Your task to perform on an android device: toggle airplane mode Image 0: 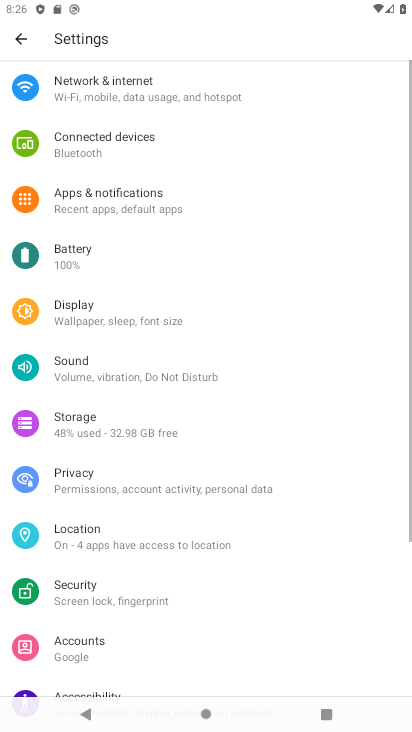
Step 0: press back button
Your task to perform on an android device: toggle airplane mode Image 1: 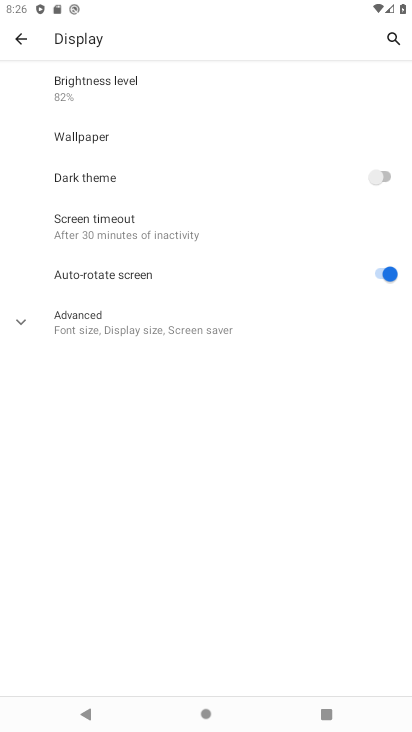
Step 1: press home button
Your task to perform on an android device: toggle airplane mode Image 2: 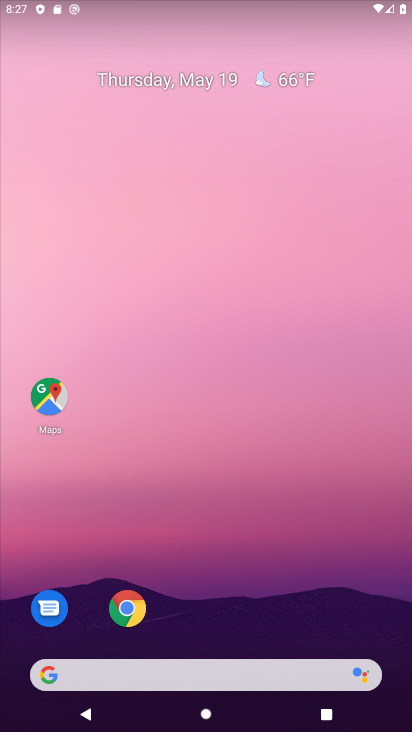
Step 2: click (245, 85)
Your task to perform on an android device: toggle airplane mode Image 3: 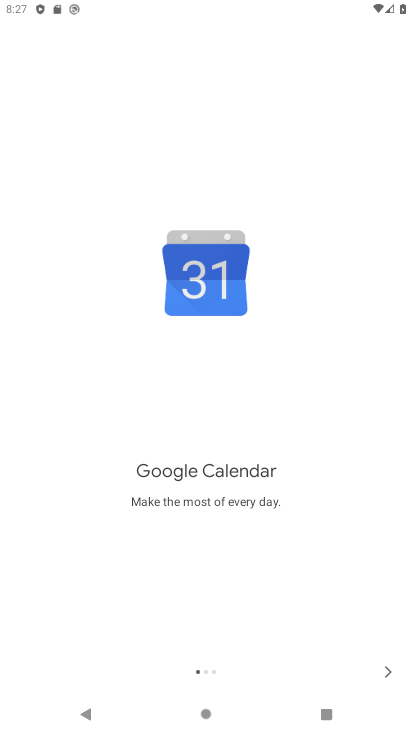
Step 3: click (388, 671)
Your task to perform on an android device: toggle airplane mode Image 4: 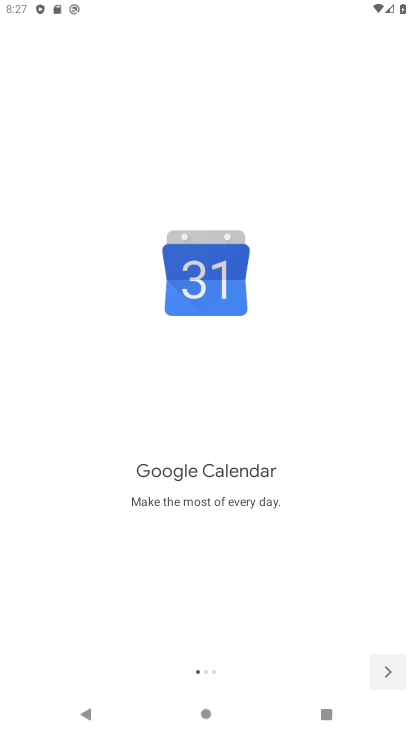
Step 4: click (388, 671)
Your task to perform on an android device: toggle airplane mode Image 5: 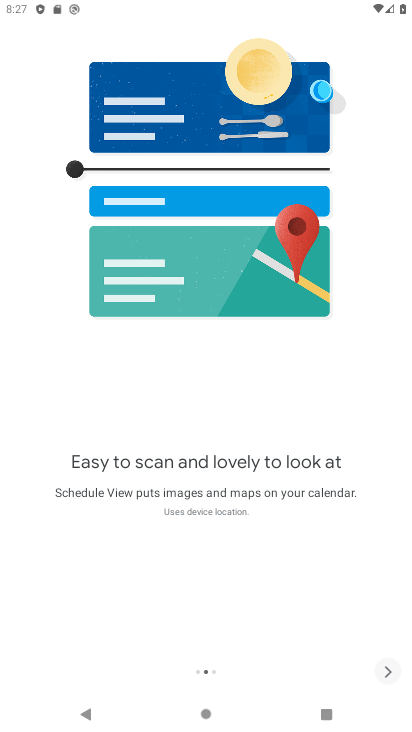
Step 5: click (388, 671)
Your task to perform on an android device: toggle airplane mode Image 6: 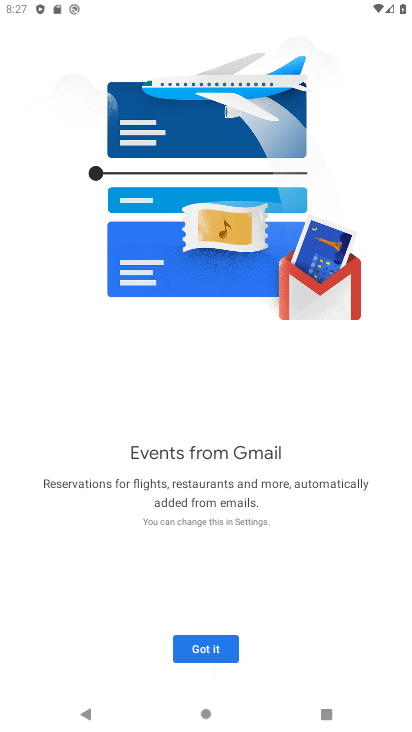
Step 6: click (386, 673)
Your task to perform on an android device: toggle airplane mode Image 7: 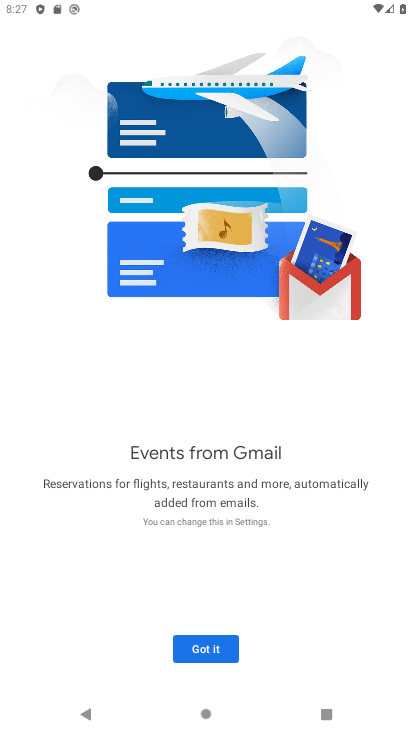
Step 7: click (386, 673)
Your task to perform on an android device: toggle airplane mode Image 8: 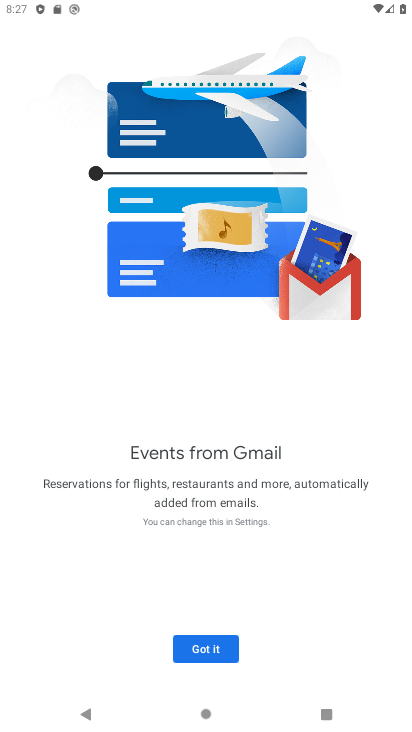
Step 8: click (225, 651)
Your task to perform on an android device: toggle airplane mode Image 9: 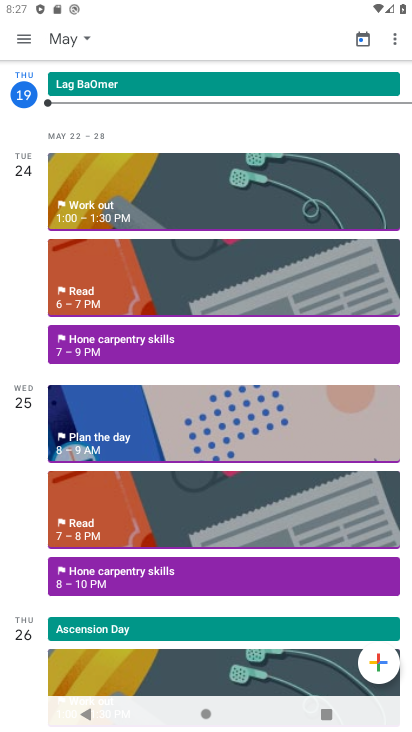
Step 9: press back button
Your task to perform on an android device: toggle airplane mode Image 10: 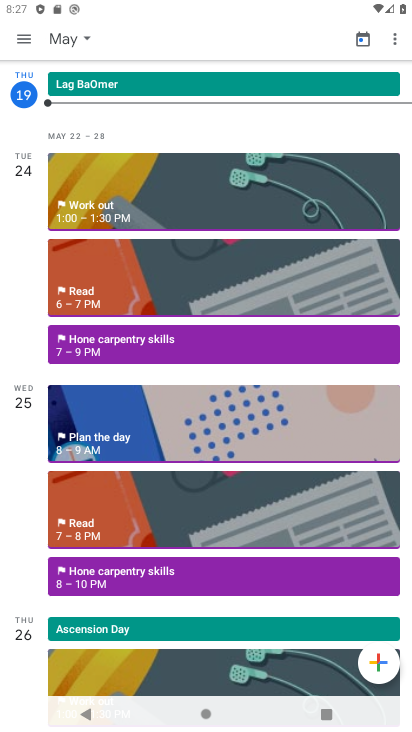
Step 10: press back button
Your task to perform on an android device: toggle airplane mode Image 11: 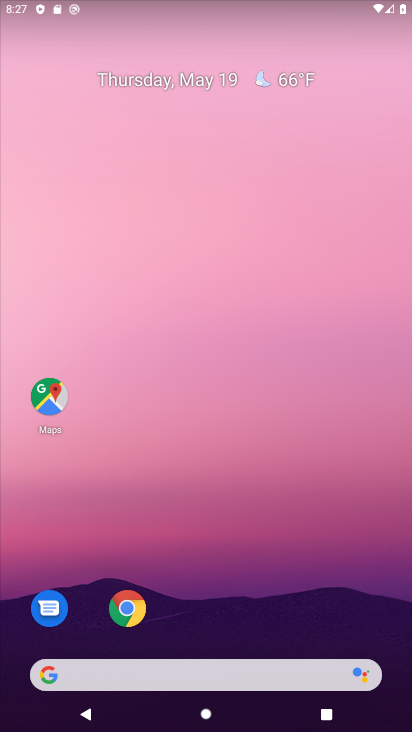
Step 11: drag from (295, 695) to (236, 40)
Your task to perform on an android device: toggle airplane mode Image 12: 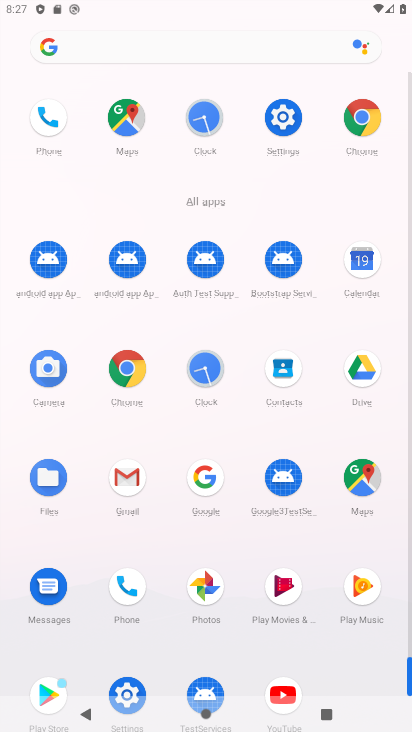
Step 12: click (290, 116)
Your task to perform on an android device: toggle airplane mode Image 13: 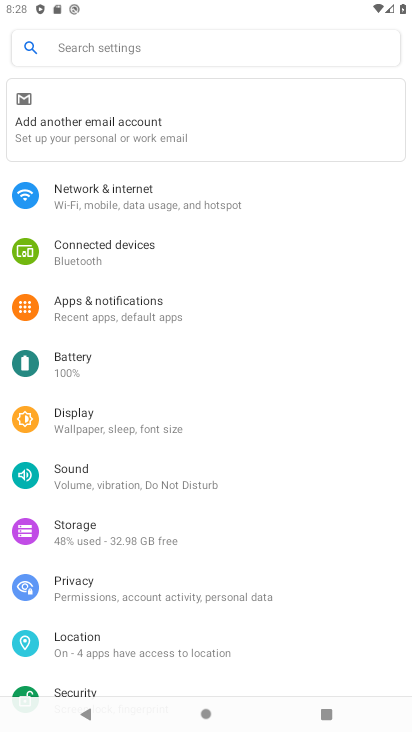
Step 13: press back button
Your task to perform on an android device: toggle airplane mode Image 14: 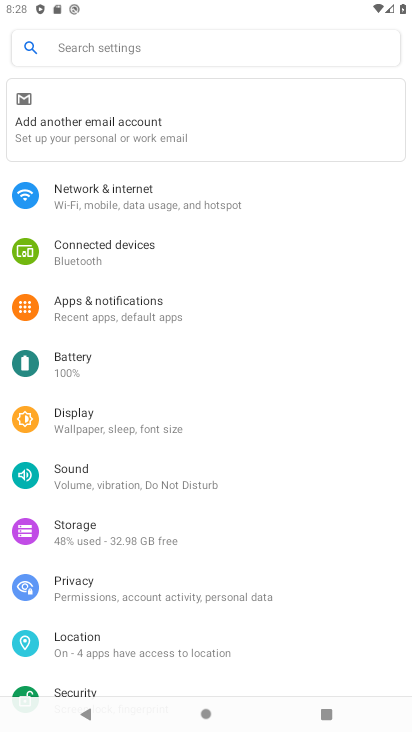
Step 14: press back button
Your task to perform on an android device: toggle airplane mode Image 15: 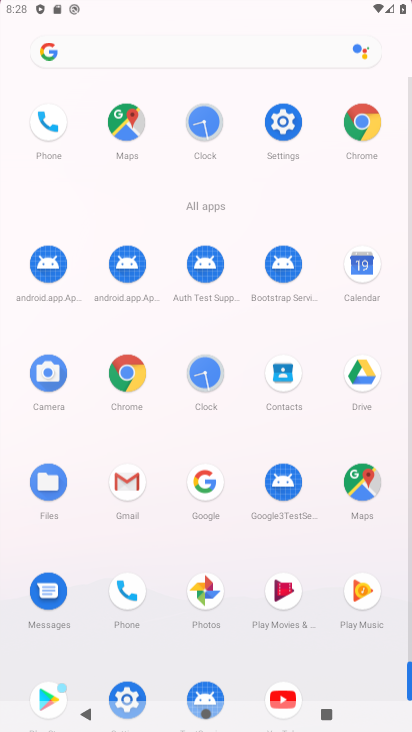
Step 15: press back button
Your task to perform on an android device: toggle airplane mode Image 16: 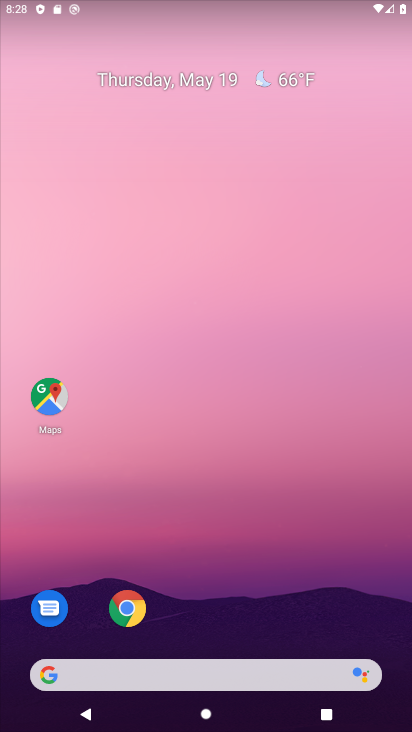
Step 16: press back button
Your task to perform on an android device: toggle airplane mode Image 17: 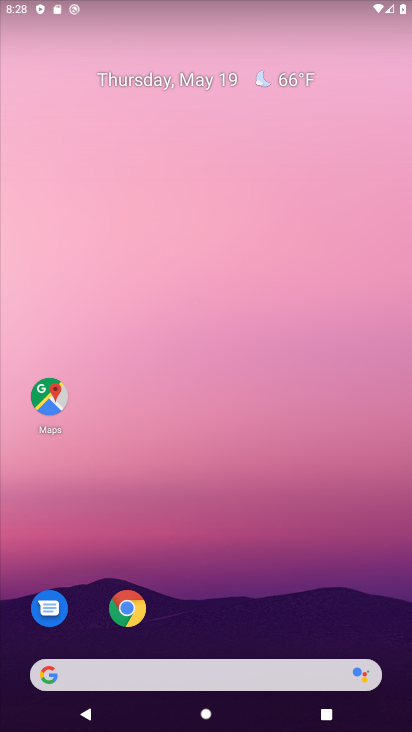
Step 17: press home button
Your task to perform on an android device: toggle airplane mode Image 18: 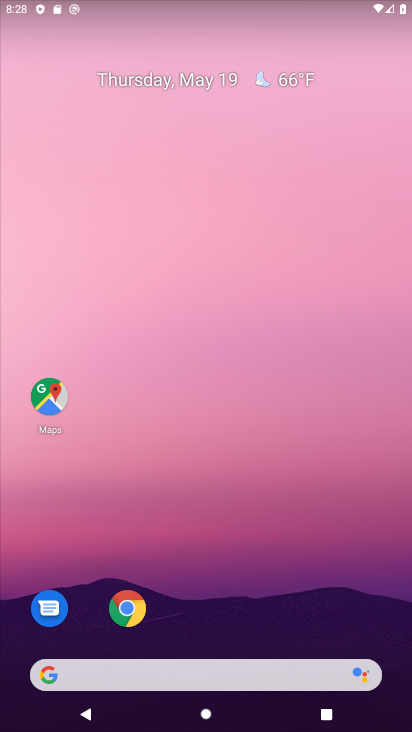
Step 18: press home button
Your task to perform on an android device: toggle airplane mode Image 19: 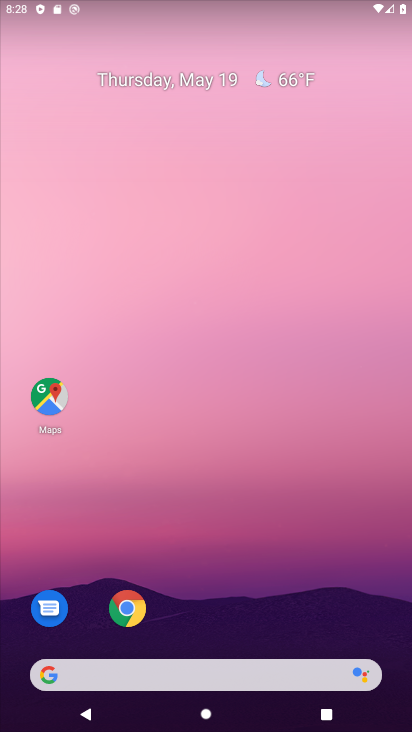
Step 19: press home button
Your task to perform on an android device: toggle airplane mode Image 20: 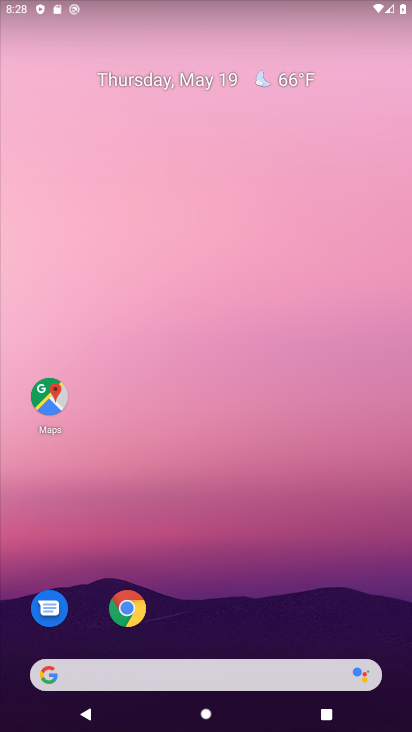
Step 20: drag from (255, 721) to (132, 48)
Your task to perform on an android device: toggle airplane mode Image 21: 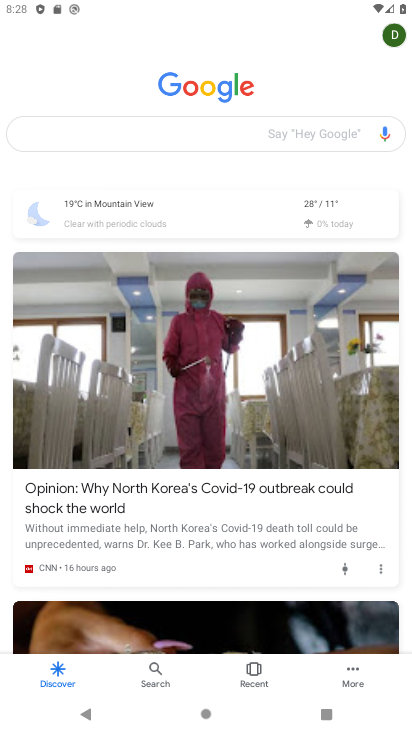
Step 21: drag from (212, 442) to (208, 300)
Your task to perform on an android device: toggle airplane mode Image 22: 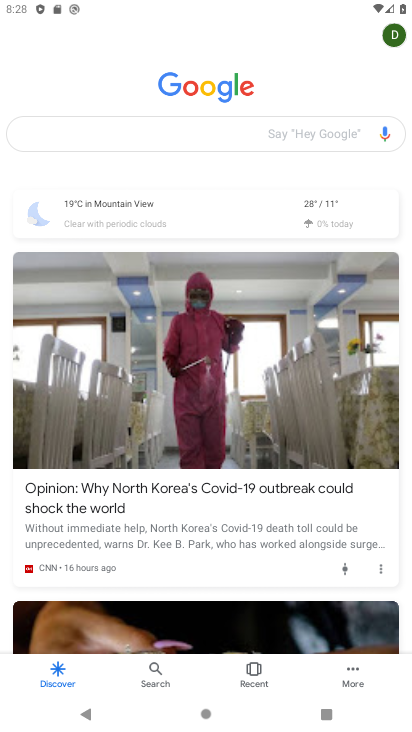
Step 22: drag from (291, 497) to (252, 147)
Your task to perform on an android device: toggle airplane mode Image 23: 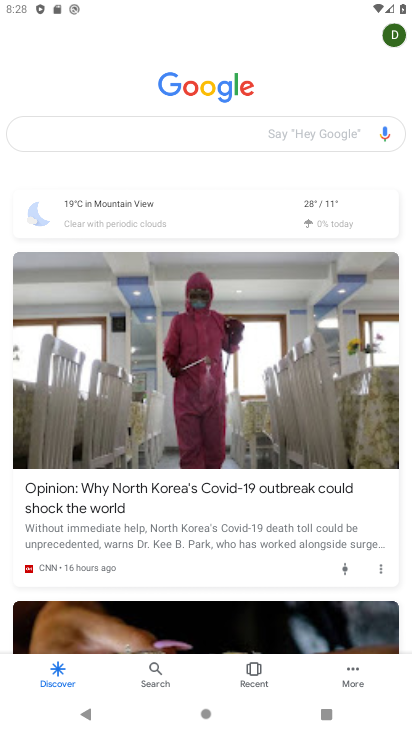
Step 23: drag from (317, 259) to (205, 180)
Your task to perform on an android device: toggle airplane mode Image 24: 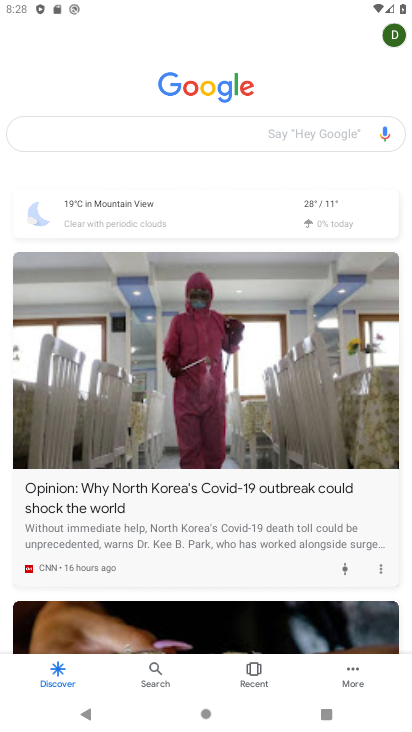
Step 24: click (224, 339)
Your task to perform on an android device: toggle airplane mode Image 25: 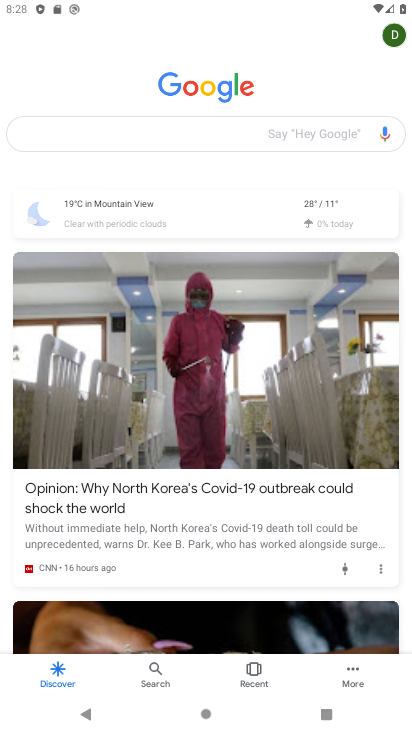
Step 25: press back button
Your task to perform on an android device: toggle airplane mode Image 26: 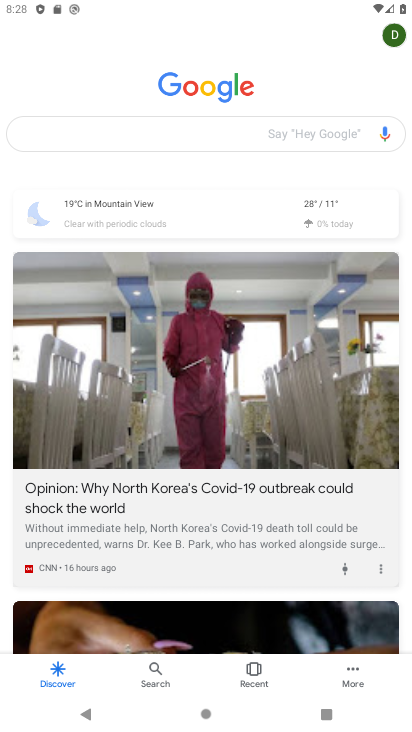
Step 26: press back button
Your task to perform on an android device: toggle airplane mode Image 27: 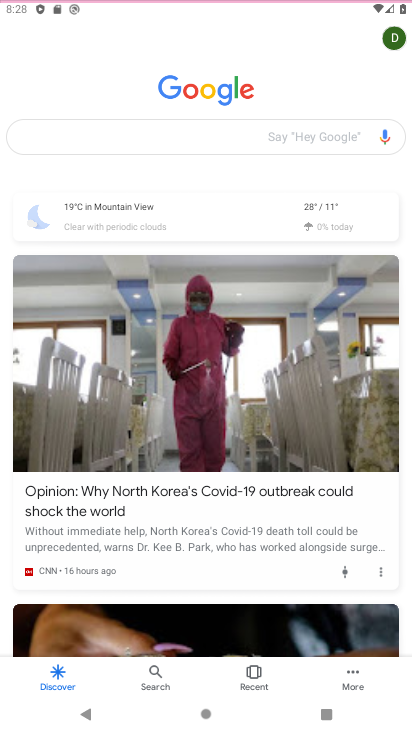
Step 27: press home button
Your task to perform on an android device: toggle airplane mode Image 28: 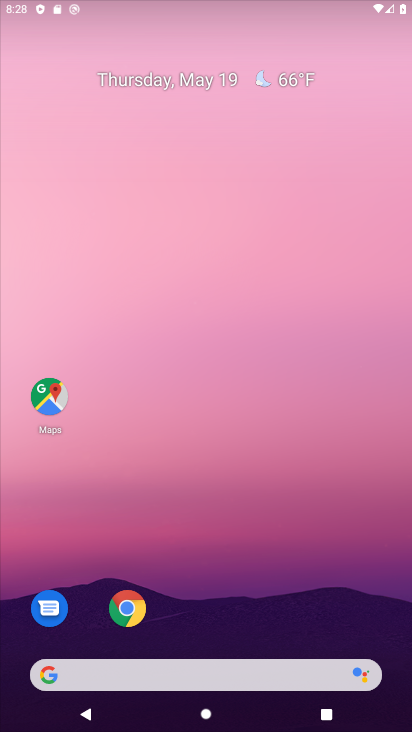
Step 28: press back button
Your task to perform on an android device: toggle airplane mode Image 29: 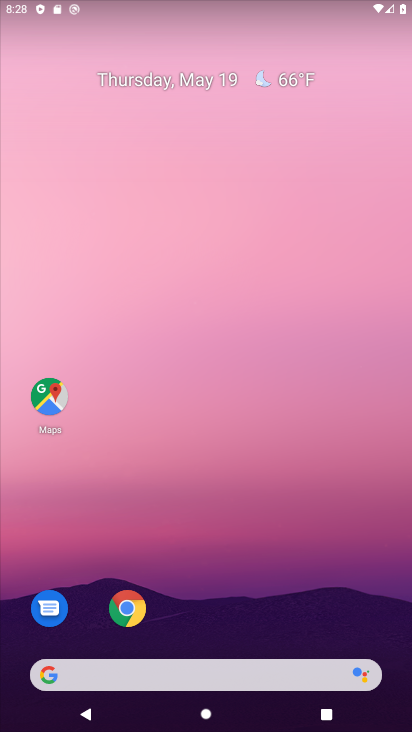
Step 29: drag from (240, 694) to (26, 150)
Your task to perform on an android device: toggle airplane mode Image 30: 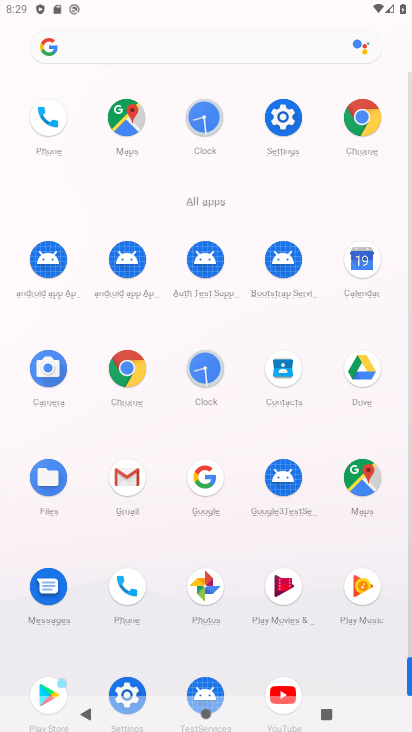
Step 30: click (282, 126)
Your task to perform on an android device: toggle airplane mode Image 31: 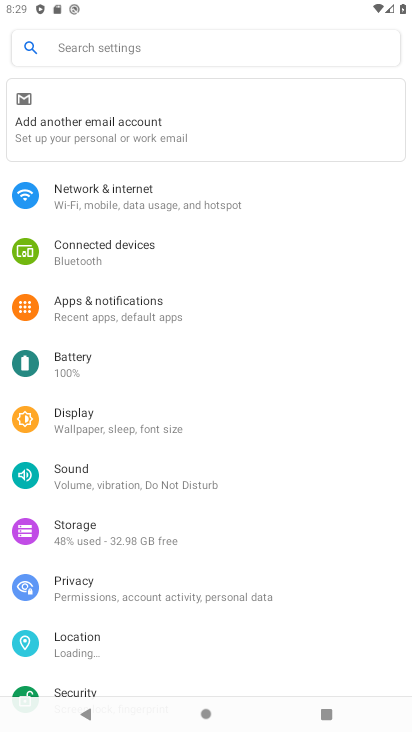
Step 31: click (111, 193)
Your task to perform on an android device: toggle airplane mode Image 32: 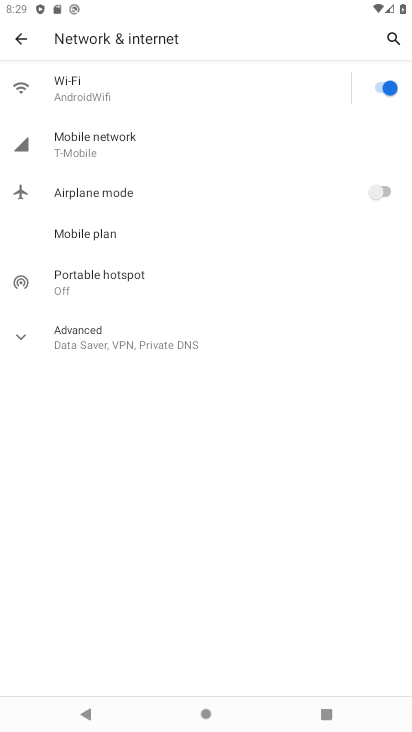
Step 32: click (375, 193)
Your task to perform on an android device: toggle airplane mode Image 33: 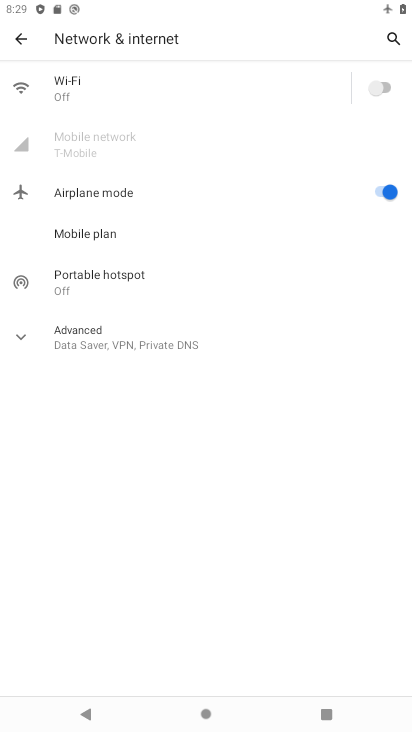
Step 33: task complete